Your task to perform on an android device: toggle translation in the chrome app Image 0: 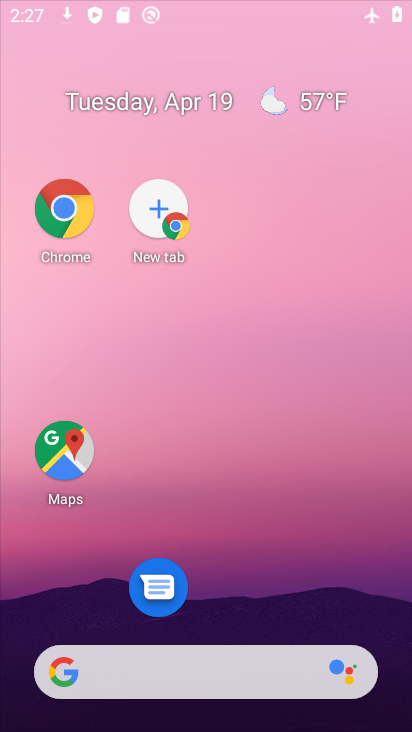
Step 0: click (285, 429)
Your task to perform on an android device: toggle translation in the chrome app Image 1: 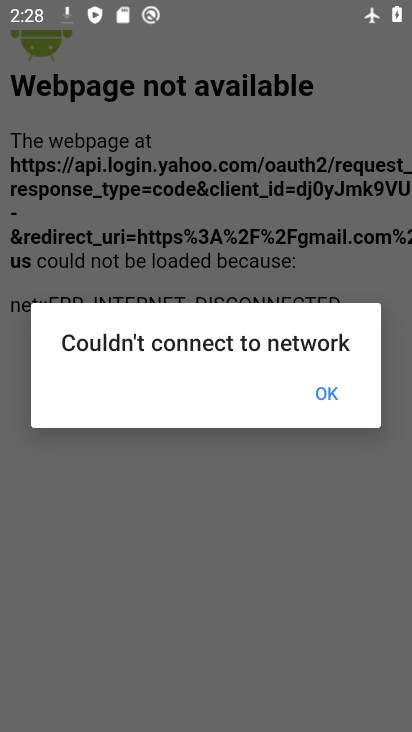
Step 1: press home button
Your task to perform on an android device: toggle translation in the chrome app Image 2: 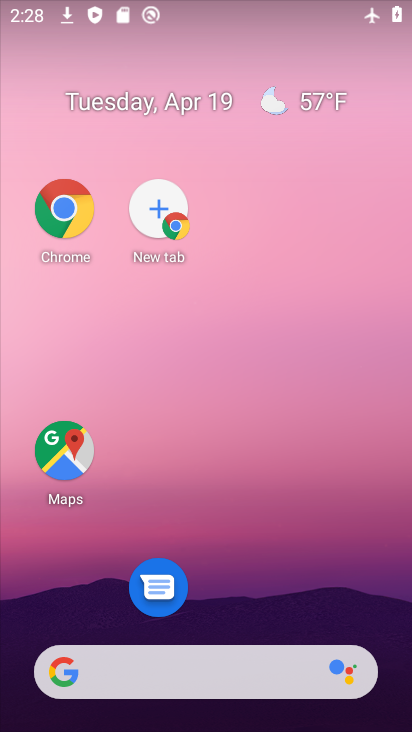
Step 2: drag from (358, 650) to (287, 342)
Your task to perform on an android device: toggle translation in the chrome app Image 3: 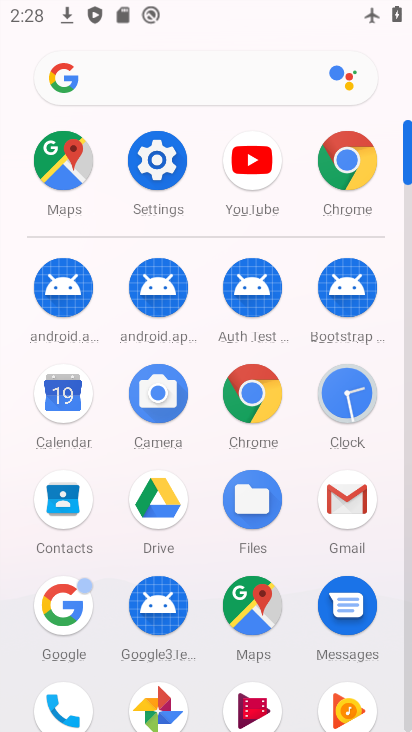
Step 3: click (345, 144)
Your task to perform on an android device: toggle translation in the chrome app Image 4: 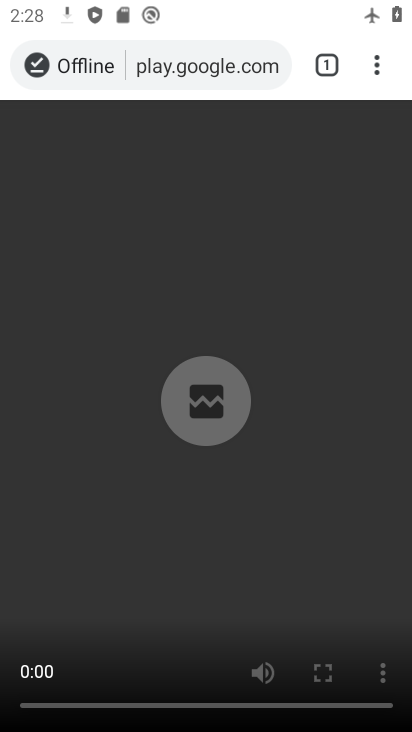
Step 4: click (380, 69)
Your task to perform on an android device: toggle translation in the chrome app Image 5: 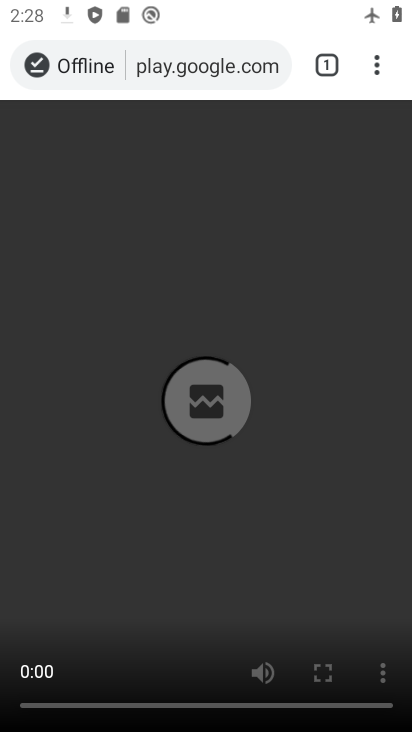
Step 5: click (377, 64)
Your task to perform on an android device: toggle translation in the chrome app Image 6: 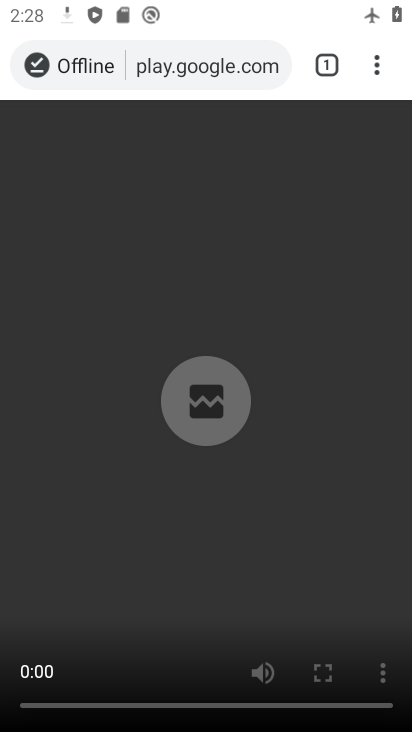
Step 6: click (377, 64)
Your task to perform on an android device: toggle translation in the chrome app Image 7: 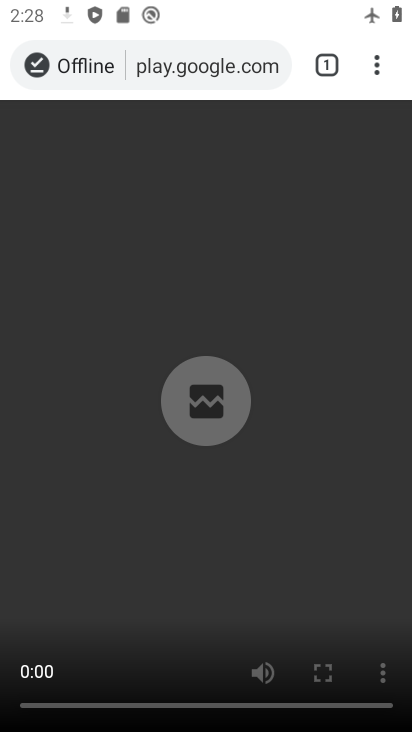
Step 7: click (377, 64)
Your task to perform on an android device: toggle translation in the chrome app Image 8: 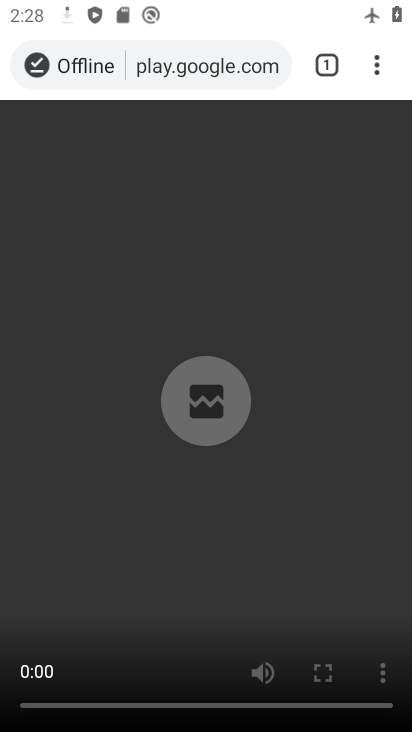
Step 8: click (372, 72)
Your task to perform on an android device: toggle translation in the chrome app Image 9: 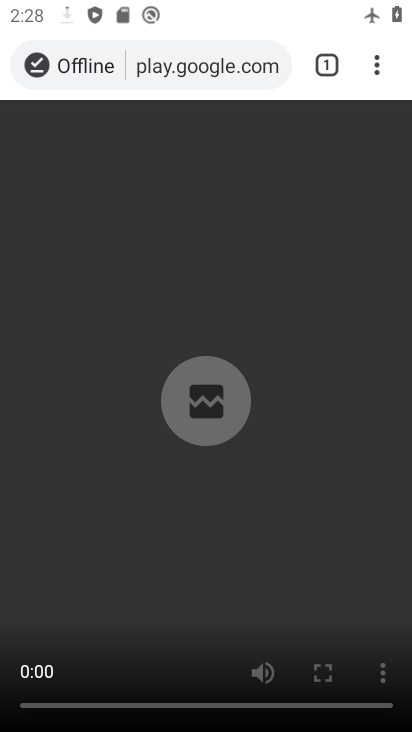
Step 9: click (376, 59)
Your task to perform on an android device: toggle translation in the chrome app Image 10: 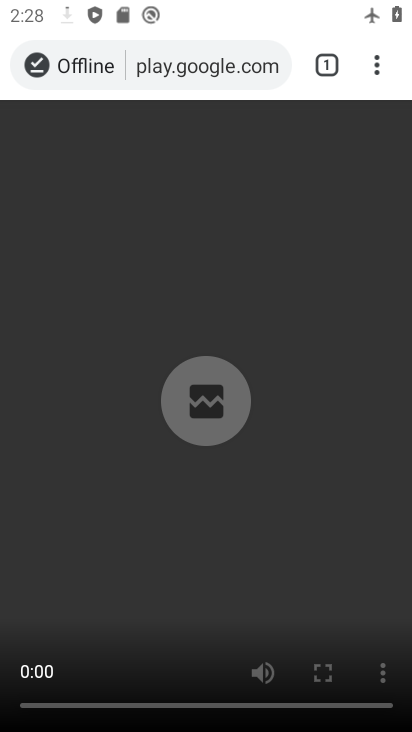
Step 10: click (376, 59)
Your task to perform on an android device: toggle translation in the chrome app Image 11: 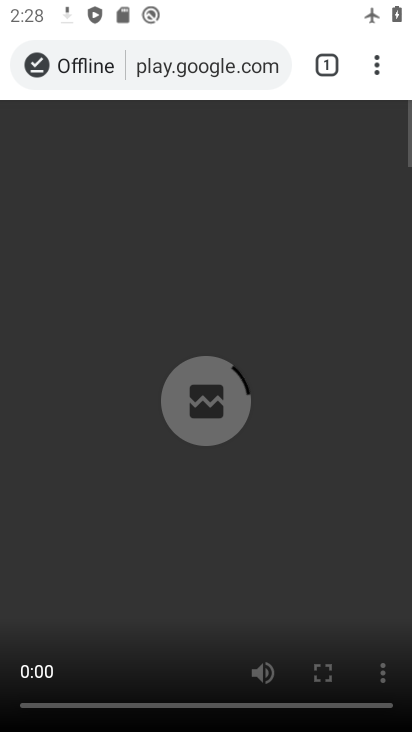
Step 11: click (376, 59)
Your task to perform on an android device: toggle translation in the chrome app Image 12: 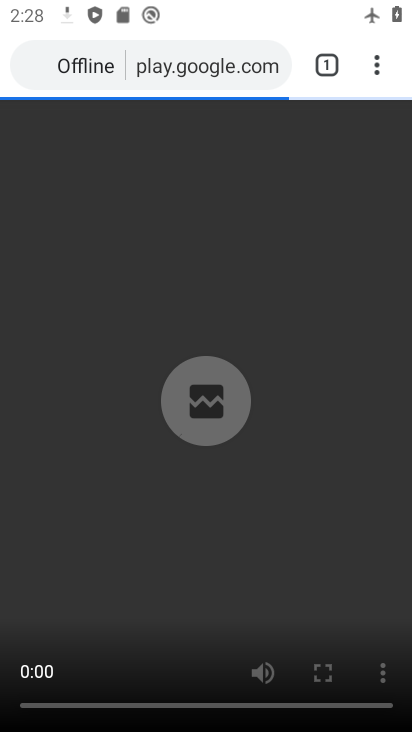
Step 12: click (376, 59)
Your task to perform on an android device: toggle translation in the chrome app Image 13: 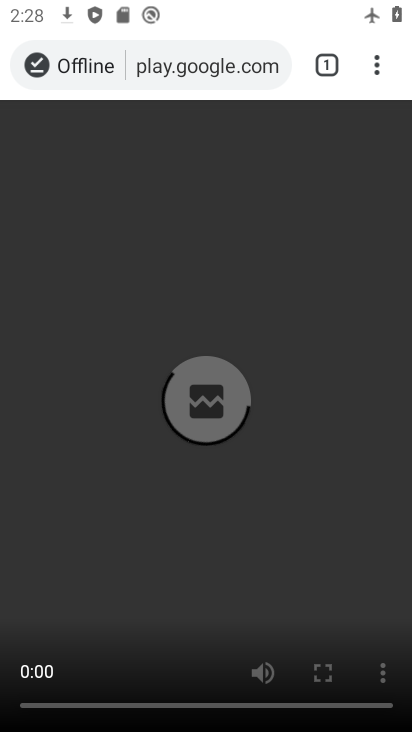
Step 13: click (366, 71)
Your task to perform on an android device: toggle translation in the chrome app Image 14: 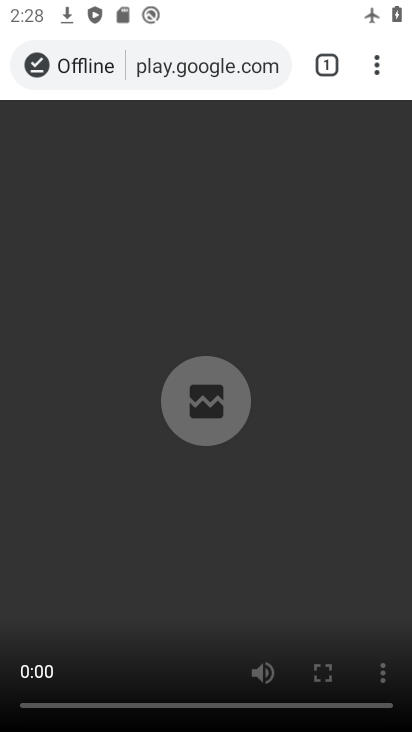
Step 14: click (372, 54)
Your task to perform on an android device: toggle translation in the chrome app Image 15: 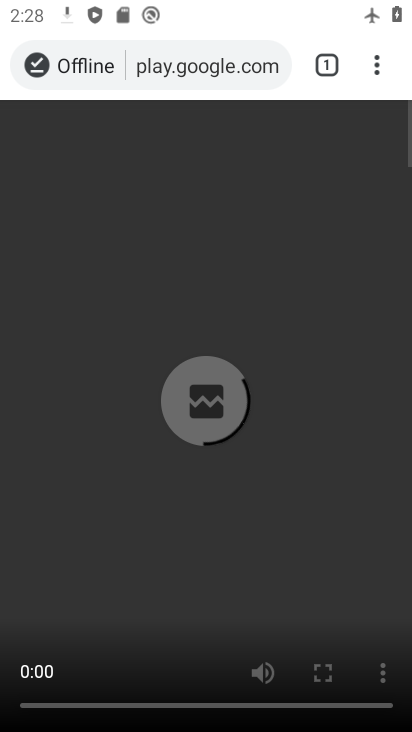
Step 15: click (372, 55)
Your task to perform on an android device: toggle translation in the chrome app Image 16: 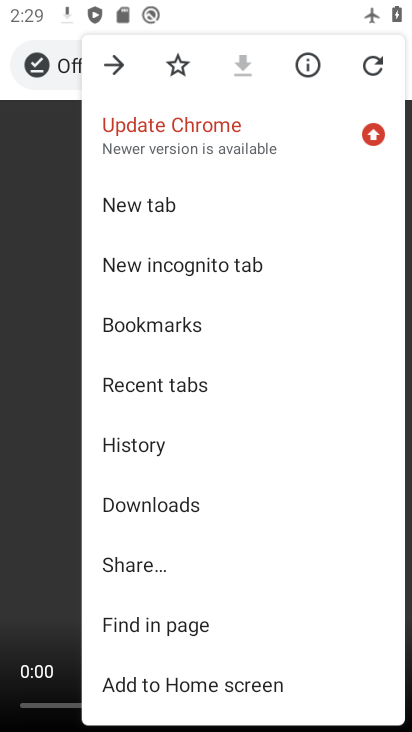
Step 16: drag from (294, 608) to (228, 168)
Your task to perform on an android device: toggle translation in the chrome app Image 17: 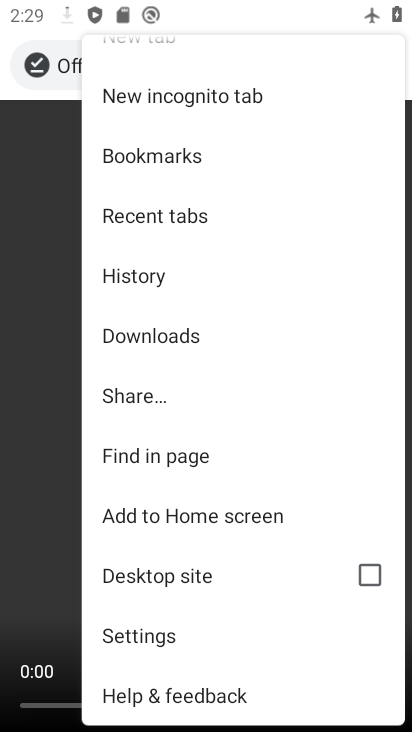
Step 17: click (144, 633)
Your task to perform on an android device: toggle translation in the chrome app Image 18: 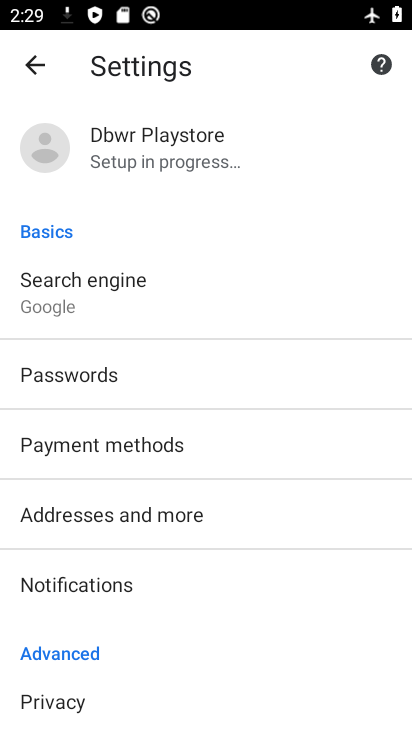
Step 18: drag from (182, 521) to (173, 282)
Your task to perform on an android device: toggle translation in the chrome app Image 19: 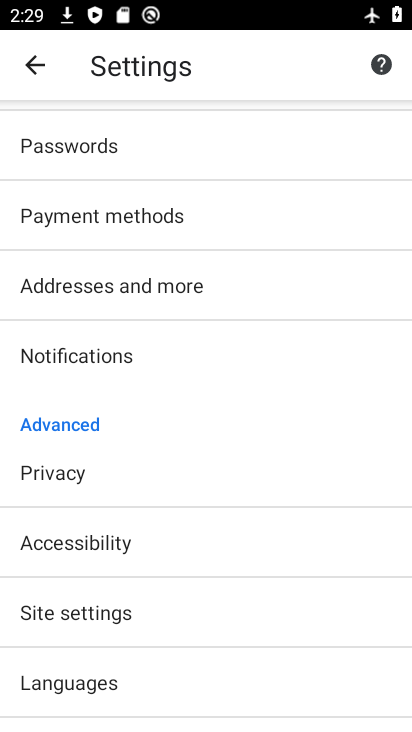
Step 19: click (71, 677)
Your task to perform on an android device: toggle translation in the chrome app Image 20: 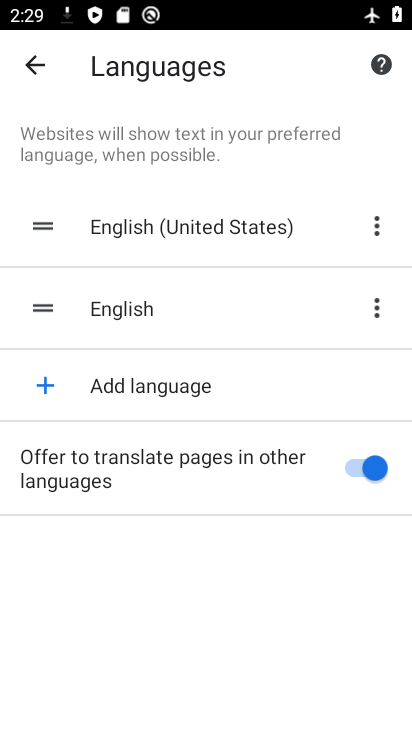
Step 20: click (370, 463)
Your task to perform on an android device: toggle translation in the chrome app Image 21: 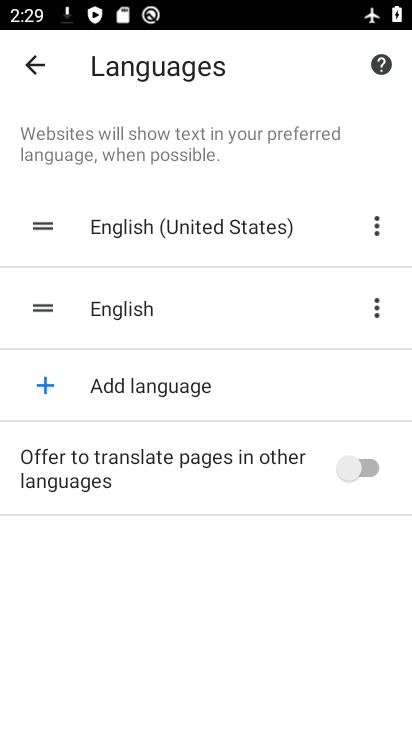
Step 21: task complete